Your task to perform on an android device: turn on sleep mode Image 0: 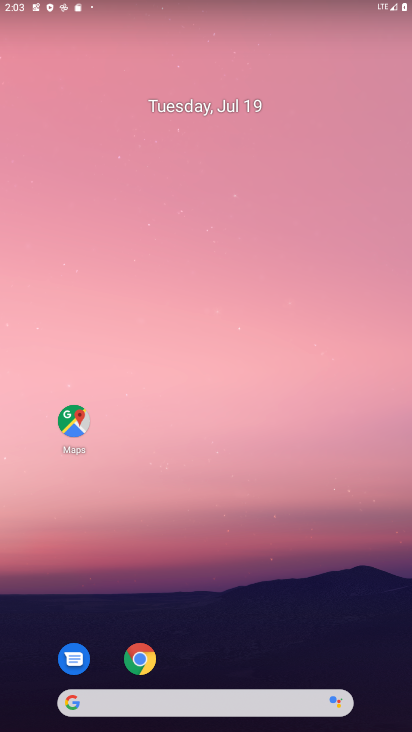
Step 0: press home button
Your task to perform on an android device: turn on sleep mode Image 1: 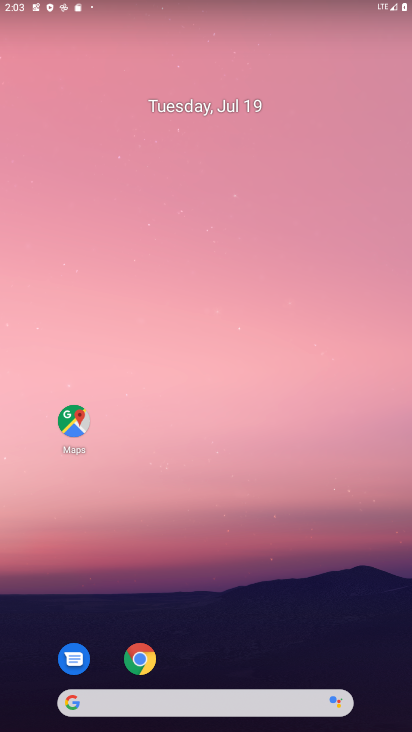
Step 1: drag from (378, 543) to (10, 484)
Your task to perform on an android device: turn on sleep mode Image 2: 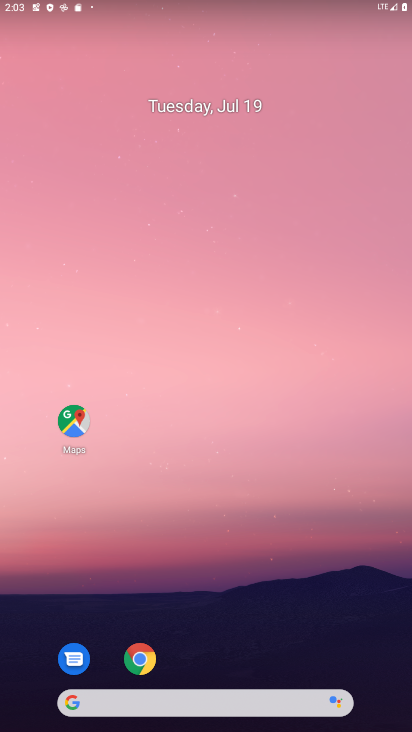
Step 2: drag from (279, 662) to (225, 38)
Your task to perform on an android device: turn on sleep mode Image 3: 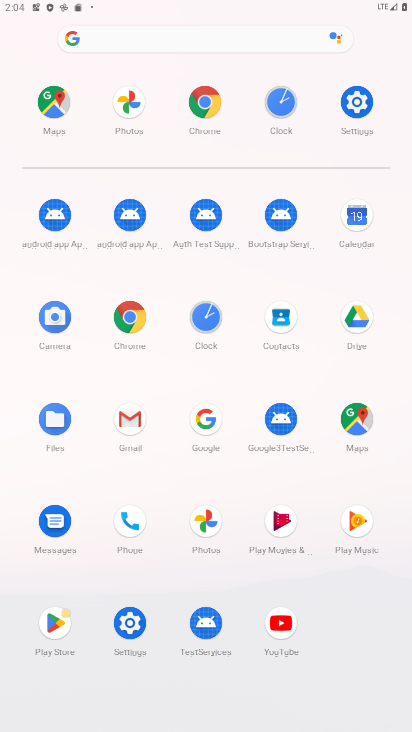
Step 3: click (132, 623)
Your task to perform on an android device: turn on sleep mode Image 4: 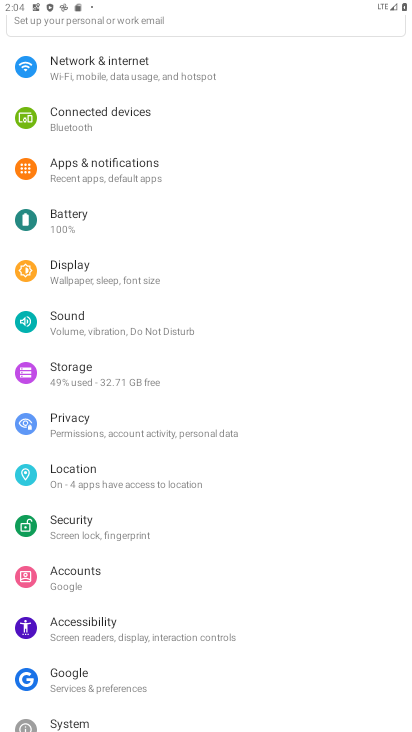
Step 4: click (95, 283)
Your task to perform on an android device: turn on sleep mode Image 5: 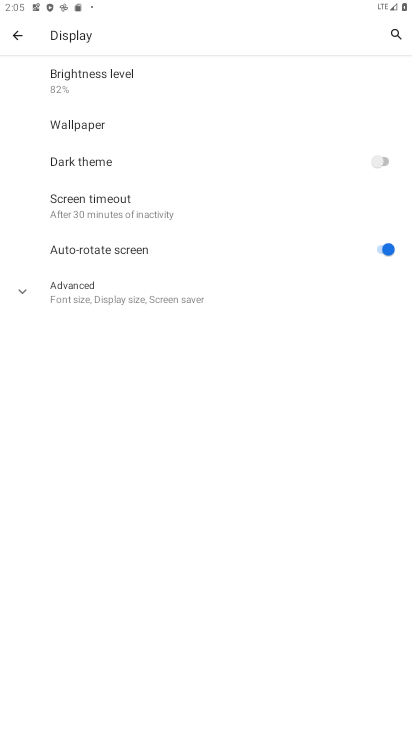
Step 5: task complete